Your task to perform on an android device: check google app version Image 0: 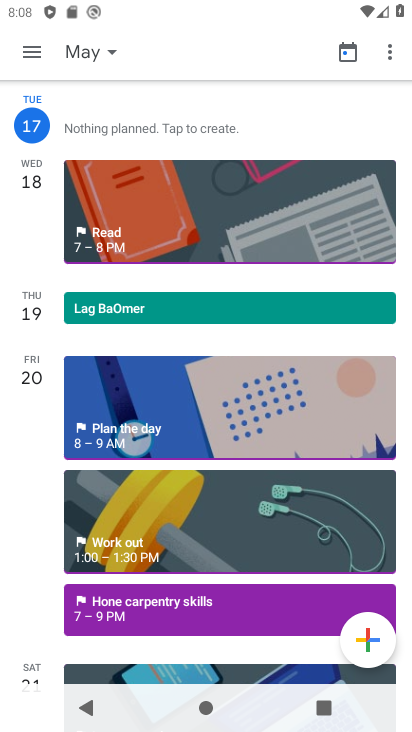
Step 0: press home button
Your task to perform on an android device: check google app version Image 1: 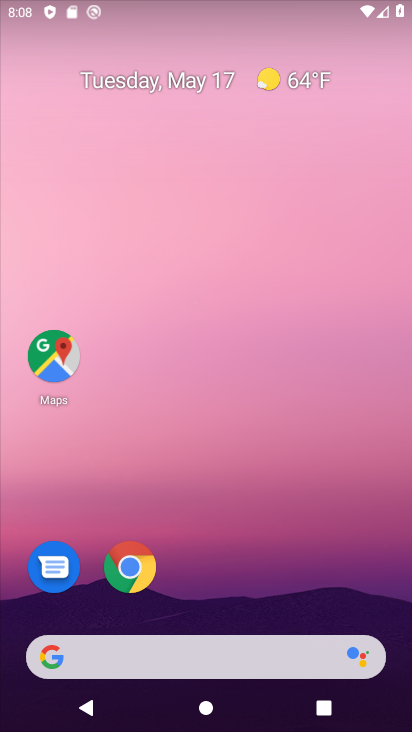
Step 1: drag from (340, 596) to (224, 0)
Your task to perform on an android device: check google app version Image 2: 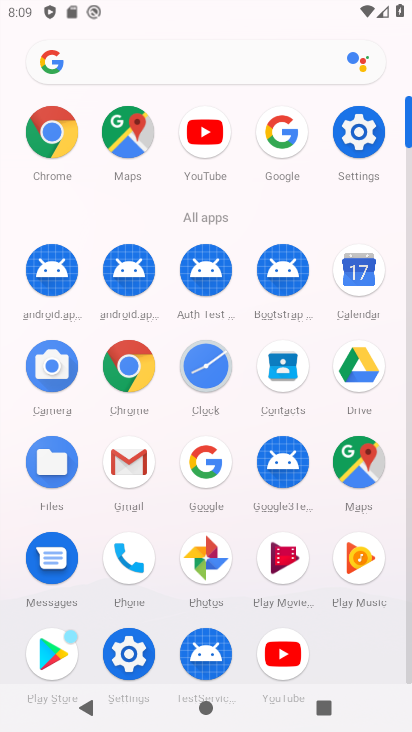
Step 2: click (206, 475)
Your task to perform on an android device: check google app version Image 3: 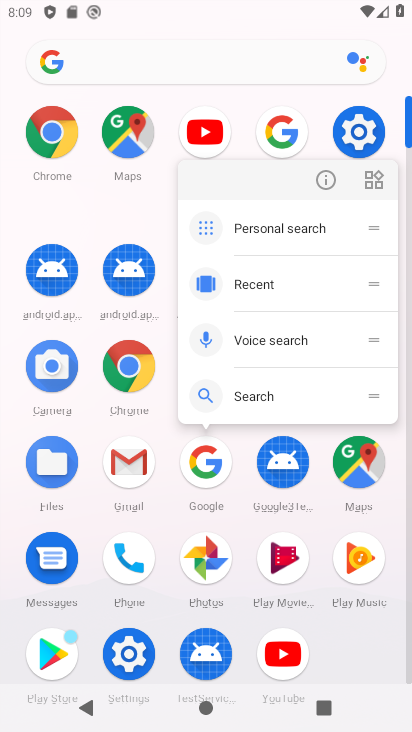
Step 3: click (323, 182)
Your task to perform on an android device: check google app version Image 4: 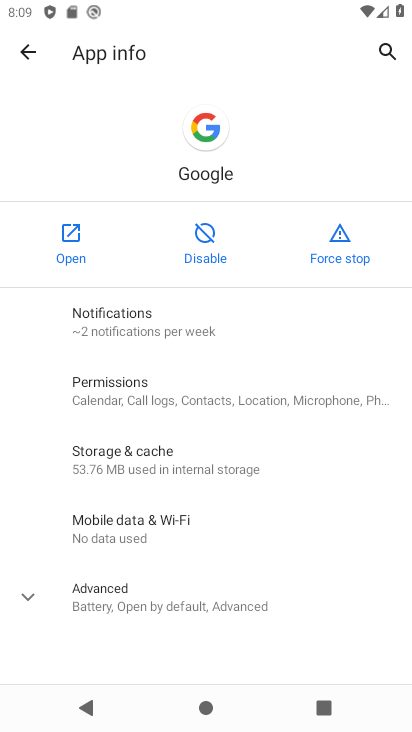
Step 4: click (38, 610)
Your task to perform on an android device: check google app version Image 5: 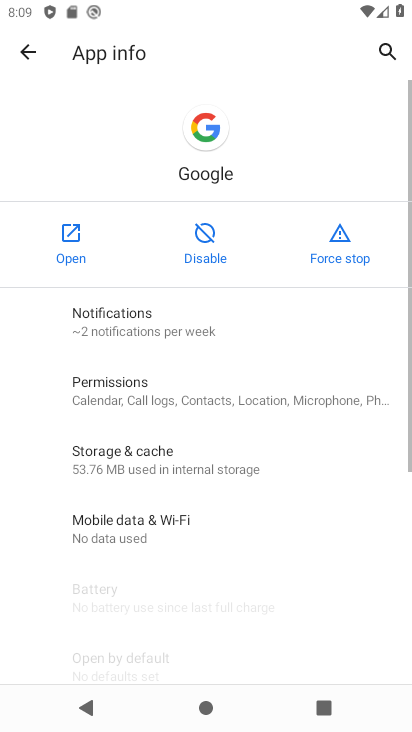
Step 5: task complete